Your task to perform on an android device: Show me popular games on the Play Store Image 0: 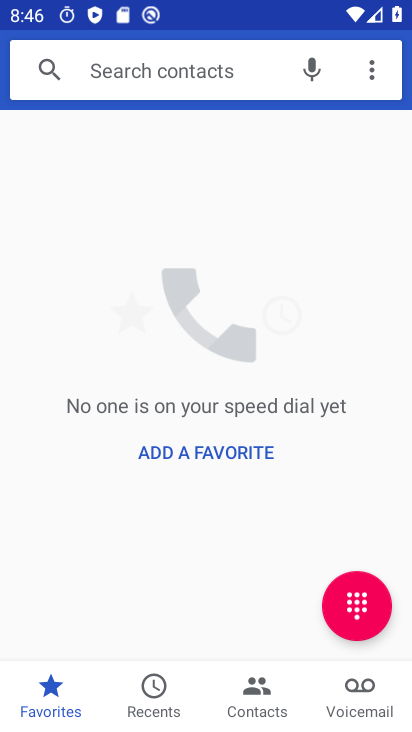
Step 0: press back button
Your task to perform on an android device: Show me popular games on the Play Store Image 1: 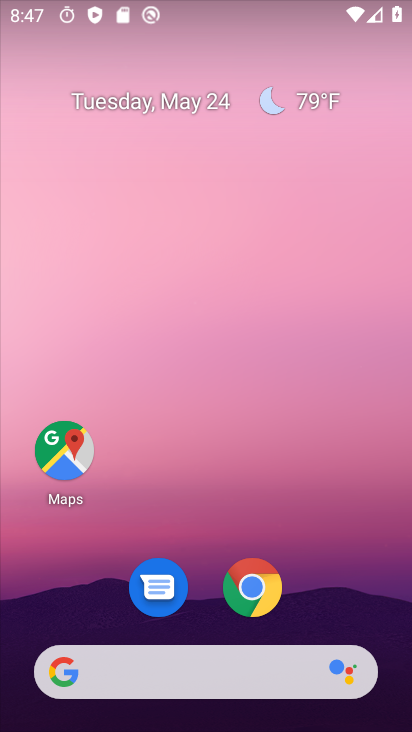
Step 1: drag from (331, 614) to (268, 100)
Your task to perform on an android device: Show me popular games on the Play Store Image 2: 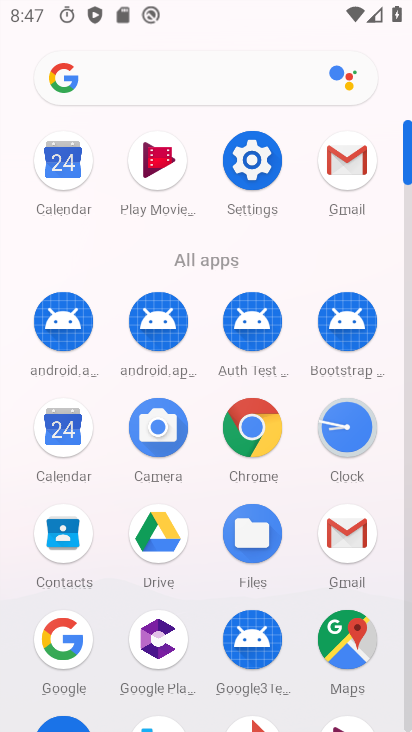
Step 2: drag from (207, 577) to (206, 362)
Your task to perform on an android device: Show me popular games on the Play Store Image 3: 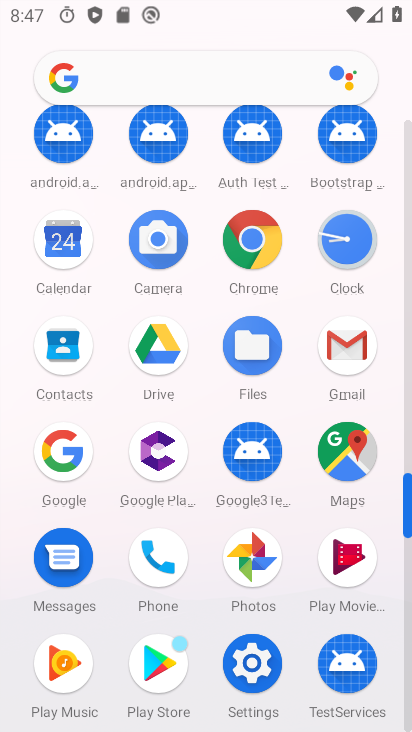
Step 3: click (160, 665)
Your task to perform on an android device: Show me popular games on the Play Store Image 4: 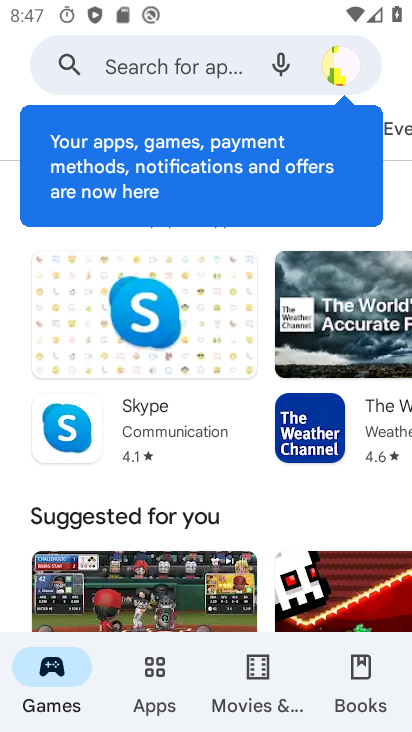
Step 4: click (221, 64)
Your task to perform on an android device: Show me popular games on the Play Store Image 5: 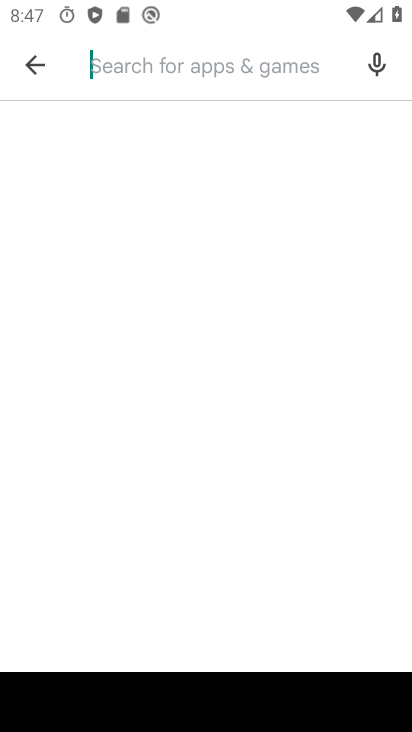
Step 5: type "popular games"
Your task to perform on an android device: Show me popular games on the Play Store Image 6: 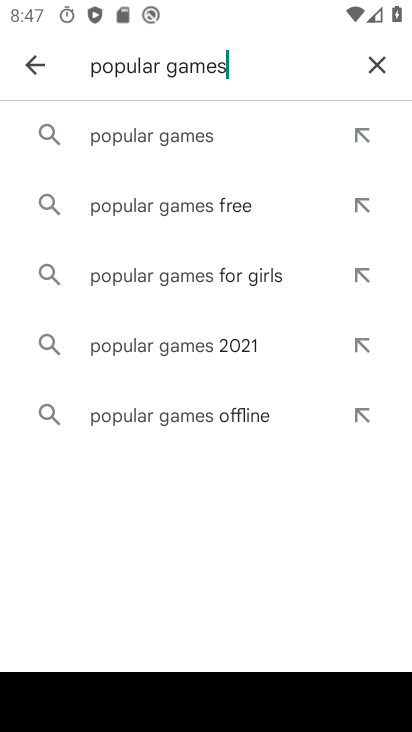
Step 6: click (127, 139)
Your task to perform on an android device: Show me popular games on the Play Store Image 7: 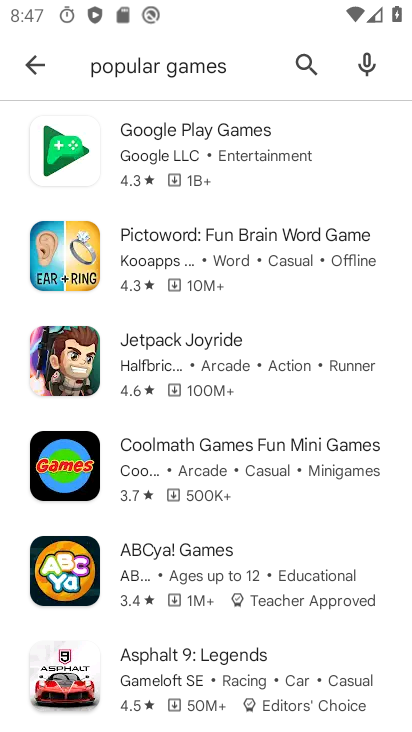
Step 7: task complete